Your task to perform on an android device: Search for Mexican restaurants on Maps Image 0: 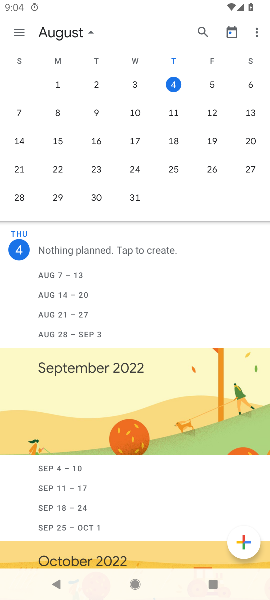
Step 0: press home button
Your task to perform on an android device: Search for Mexican restaurants on Maps Image 1: 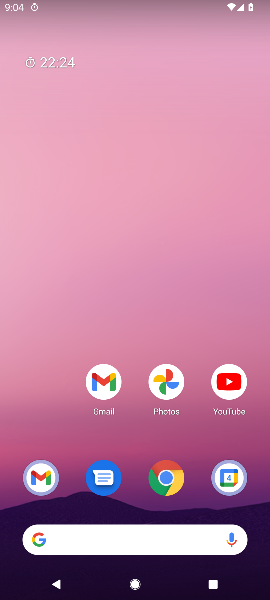
Step 1: drag from (145, 424) to (180, 0)
Your task to perform on an android device: Search for Mexican restaurants on Maps Image 2: 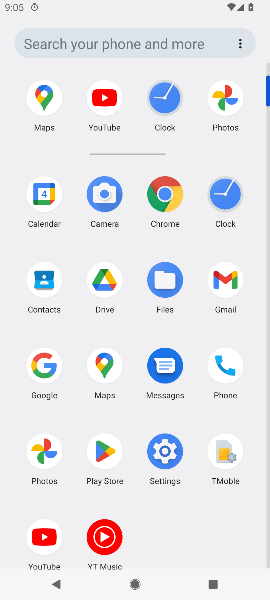
Step 2: click (104, 365)
Your task to perform on an android device: Search for Mexican restaurants on Maps Image 3: 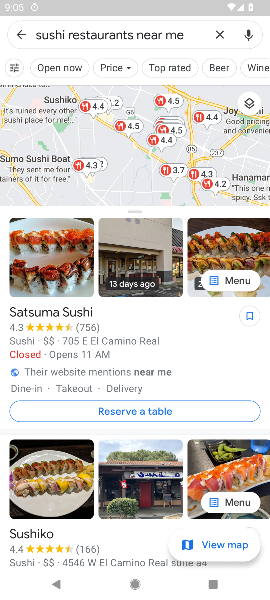
Step 3: click (217, 31)
Your task to perform on an android device: Search for Mexican restaurants on Maps Image 4: 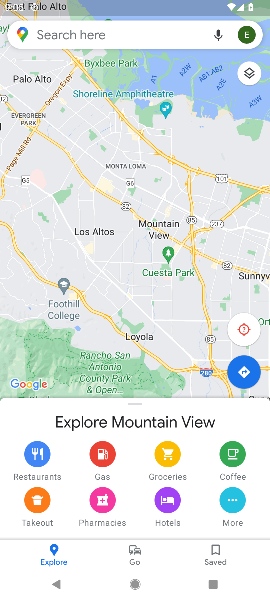
Step 4: click (112, 35)
Your task to perform on an android device: Search for Mexican restaurants on Maps Image 5: 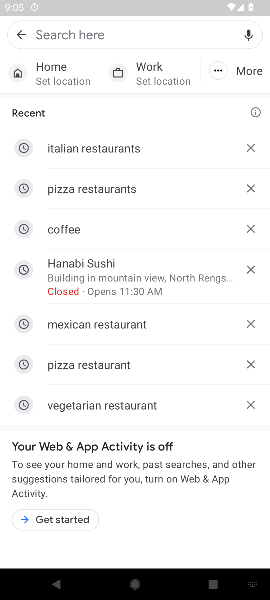
Step 5: type " Mexican restaurants"
Your task to perform on an android device: Search for Mexican restaurants on Maps Image 6: 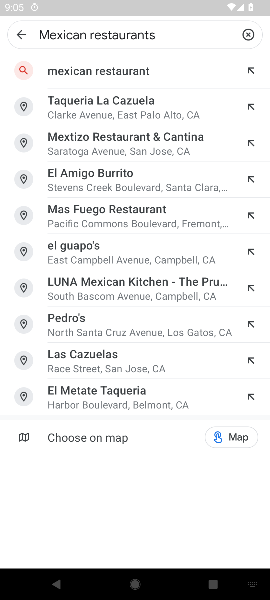
Step 6: click (118, 69)
Your task to perform on an android device: Search for Mexican restaurants on Maps Image 7: 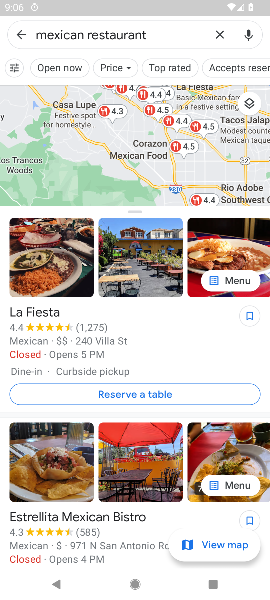
Step 7: task complete